Your task to perform on an android device: see creations saved in the google photos Image 0: 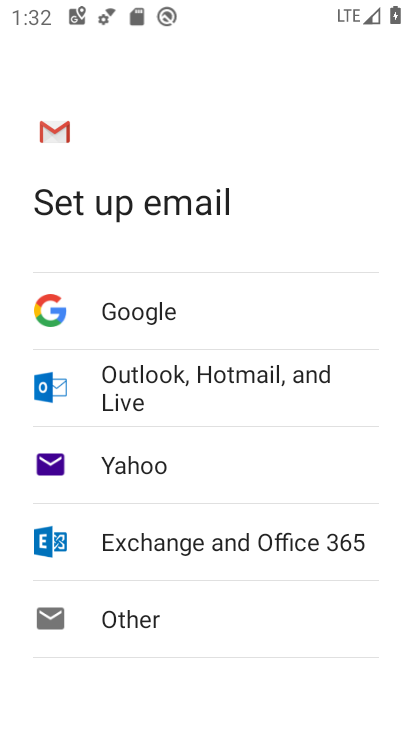
Step 0: press home button
Your task to perform on an android device: see creations saved in the google photos Image 1: 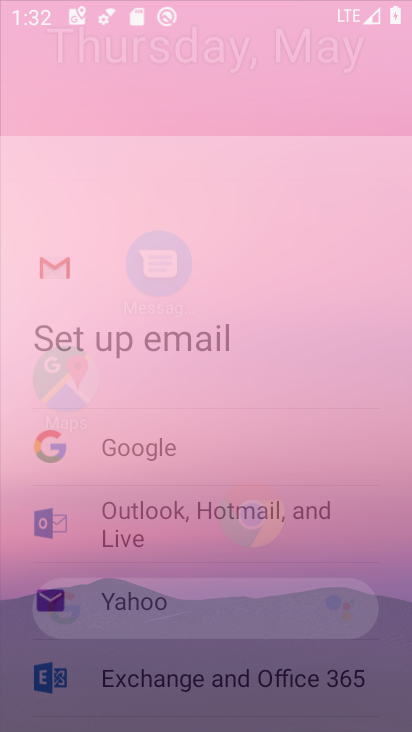
Step 1: drag from (223, 627) to (273, 132)
Your task to perform on an android device: see creations saved in the google photos Image 2: 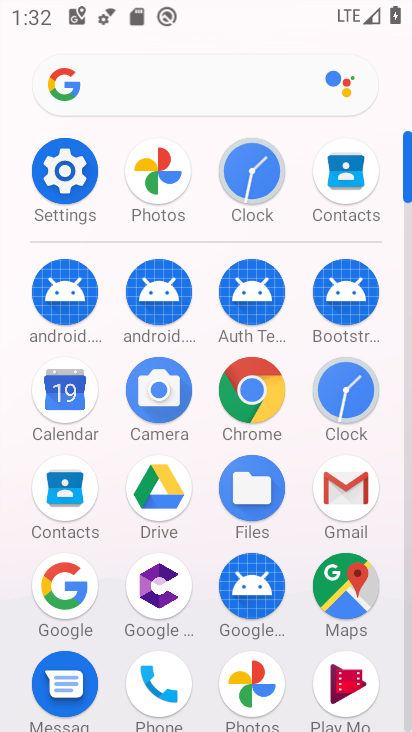
Step 2: click (168, 173)
Your task to perform on an android device: see creations saved in the google photos Image 3: 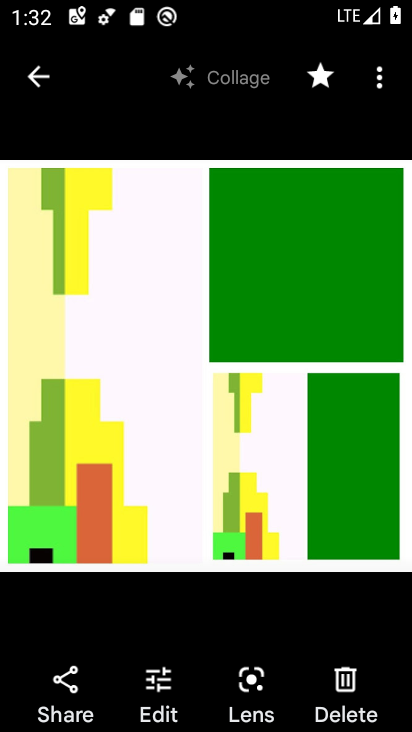
Step 3: press home button
Your task to perform on an android device: see creations saved in the google photos Image 4: 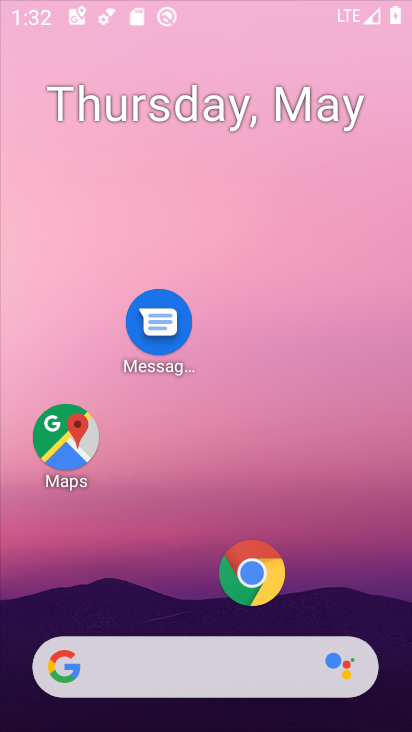
Step 4: drag from (237, 581) to (258, 93)
Your task to perform on an android device: see creations saved in the google photos Image 5: 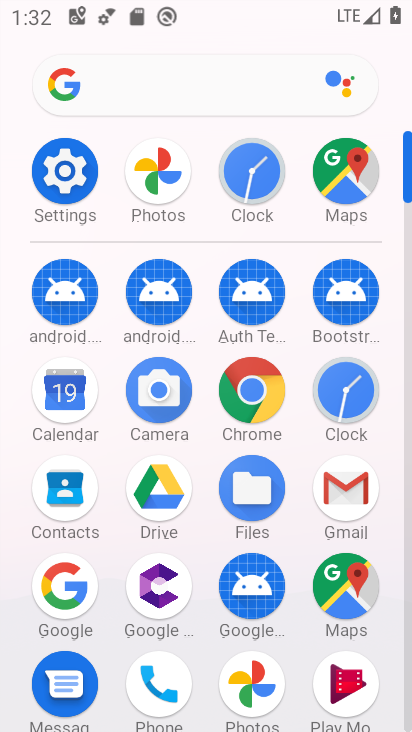
Step 5: click (251, 655)
Your task to perform on an android device: see creations saved in the google photos Image 6: 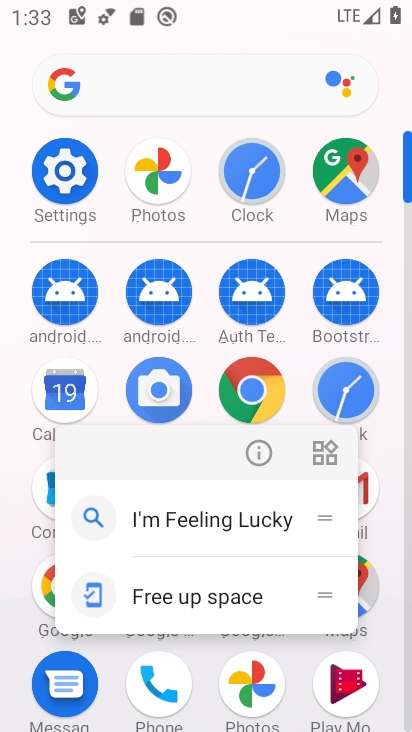
Step 6: click (253, 455)
Your task to perform on an android device: see creations saved in the google photos Image 7: 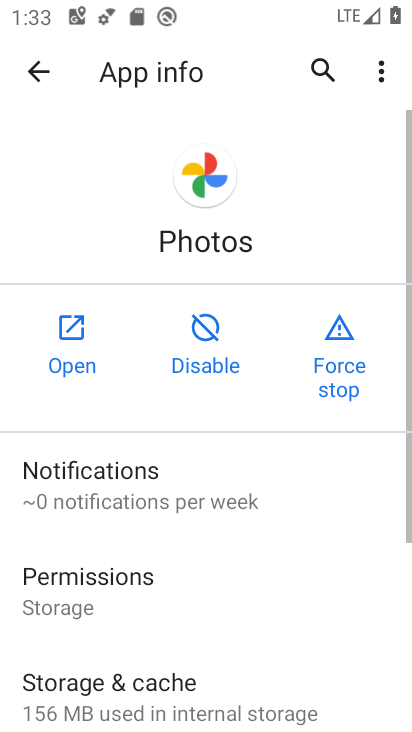
Step 7: click (65, 325)
Your task to perform on an android device: see creations saved in the google photos Image 8: 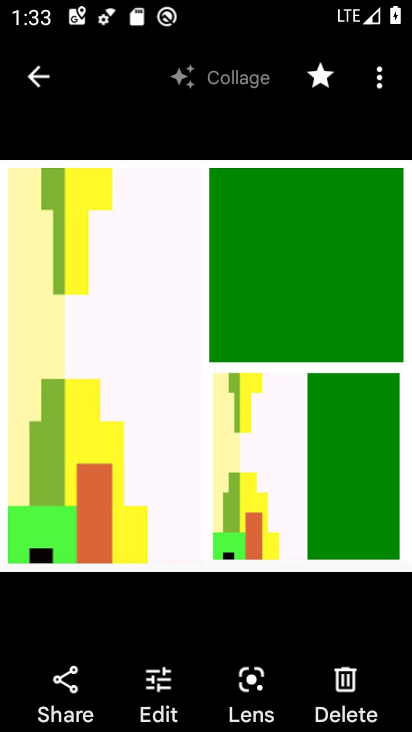
Step 8: press back button
Your task to perform on an android device: see creations saved in the google photos Image 9: 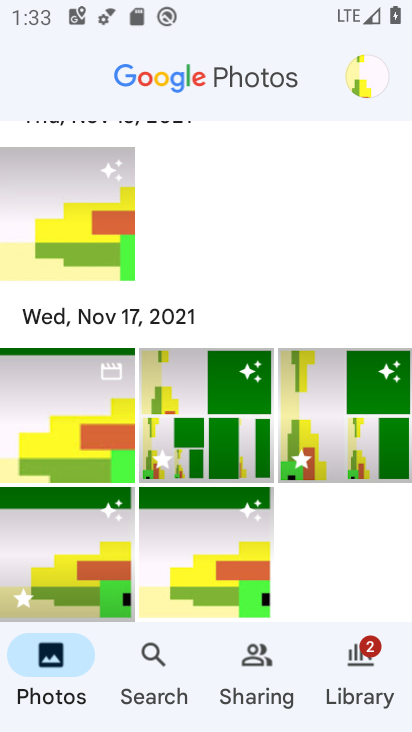
Step 9: click (143, 660)
Your task to perform on an android device: see creations saved in the google photos Image 10: 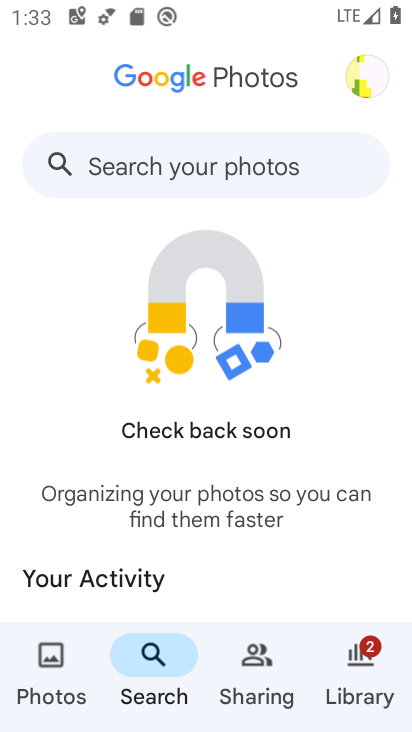
Step 10: drag from (170, 594) to (286, 11)
Your task to perform on an android device: see creations saved in the google photos Image 11: 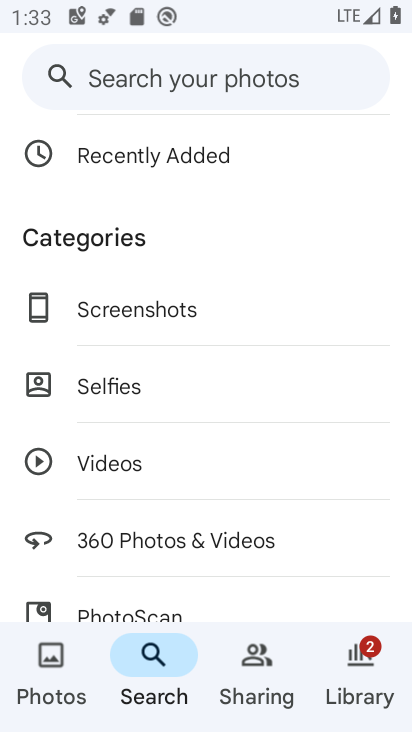
Step 11: drag from (175, 487) to (265, 73)
Your task to perform on an android device: see creations saved in the google photos Image 12: 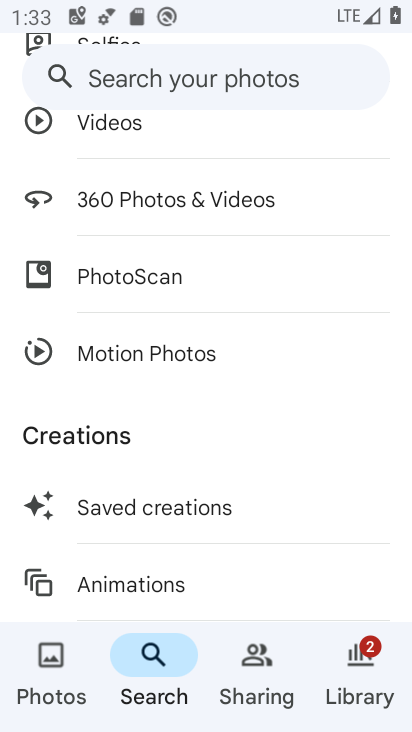
Step 12: drag from (156, 547) to (248, 139)
Your task to perform on an android device: see creations saved in the google photos Image 13: 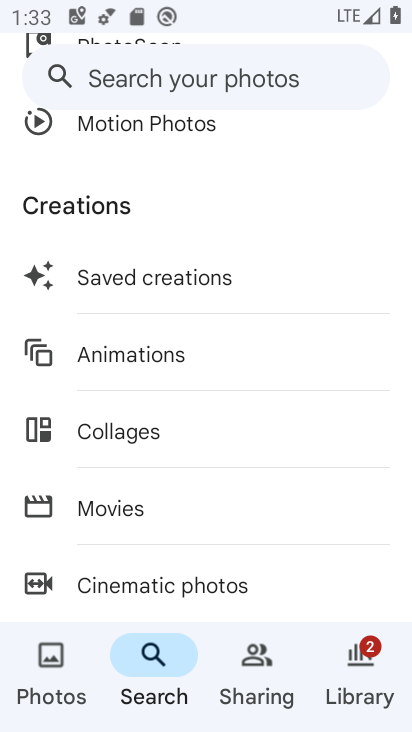
Step 13: click (165, 274)
Your task to perform on an android device: see creations saved in the google photos Image 14: 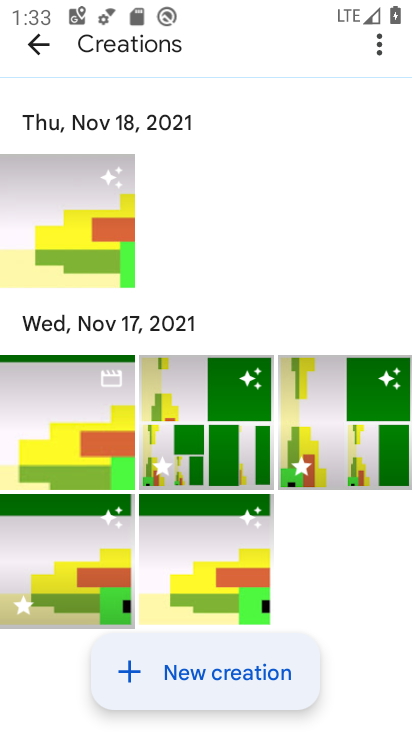
Step 14: click (79, 238)
Your task to perform on an android device: see creations saved in the google photos Image 15: 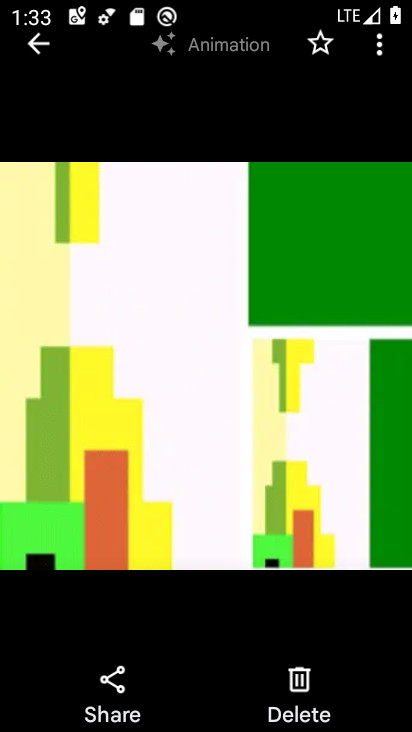
Step 15: task complete